Your task to perform on an android device: install app "Google Calendar" Image 0: 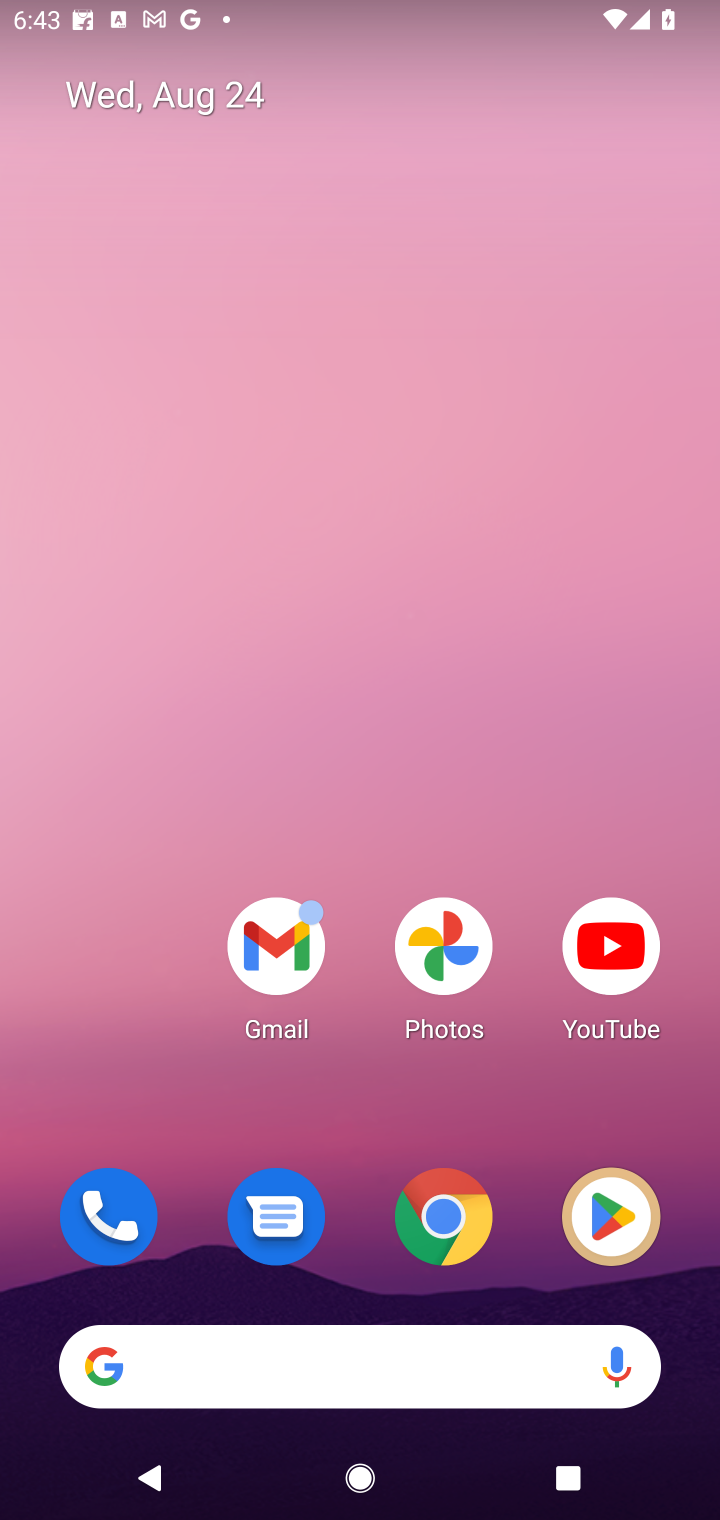
Step 0: click (594, 1259)
Your task to perform on an android device: install app "Google Calendar" Image 1: 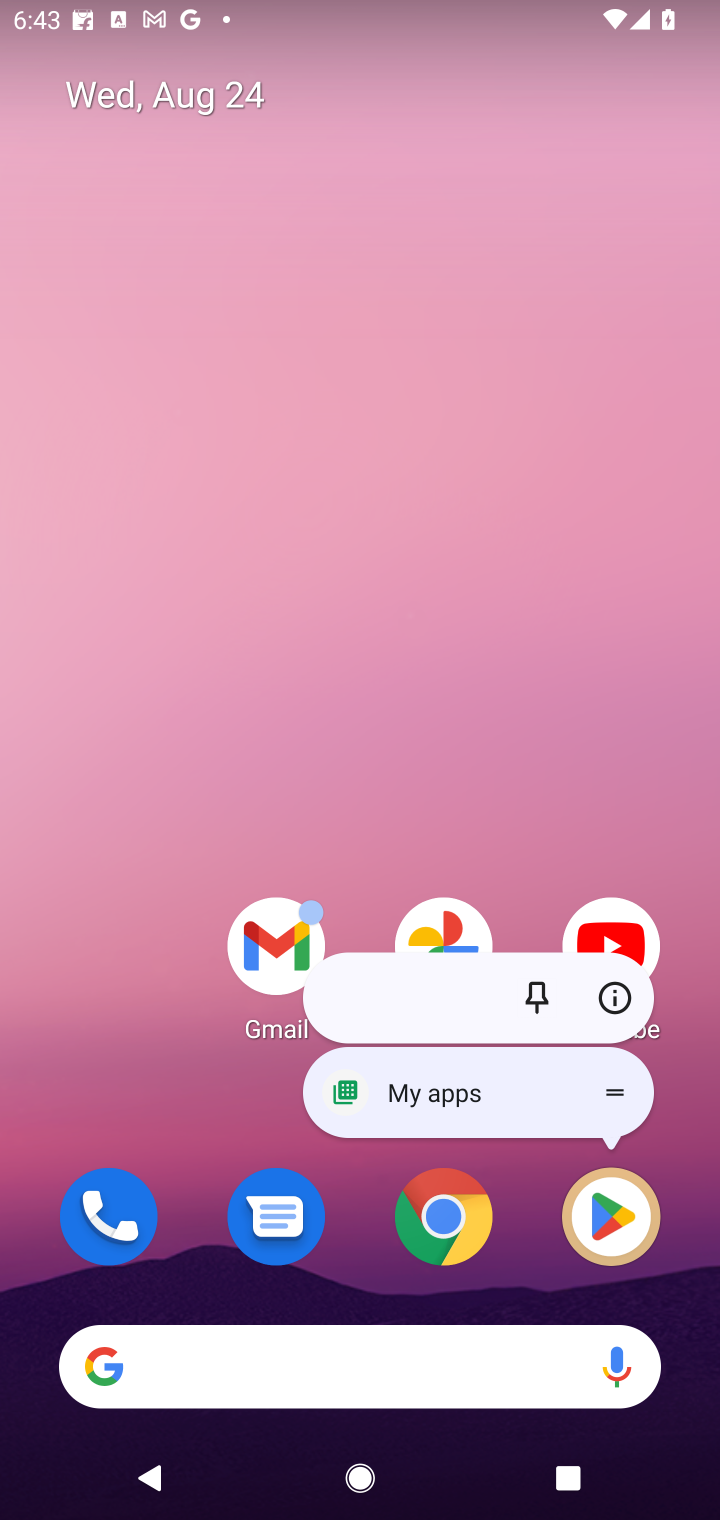
Step 1: click (592, 1231)
Your task to perform on an android device: install app "Google Calendar" Image 2: 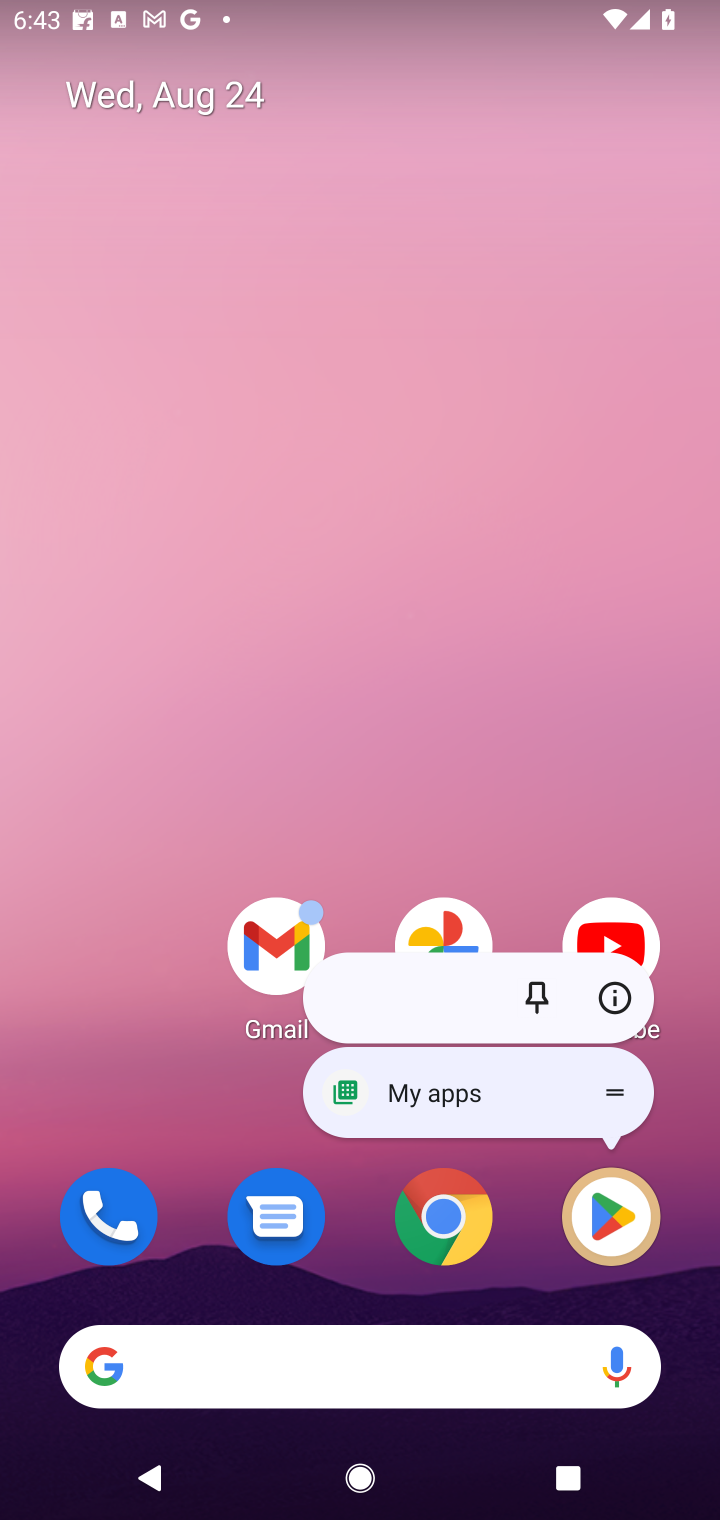
Step 2: click (592, 1231)
Your task to perform on an android device: install app "Google Calendar" Image 3: 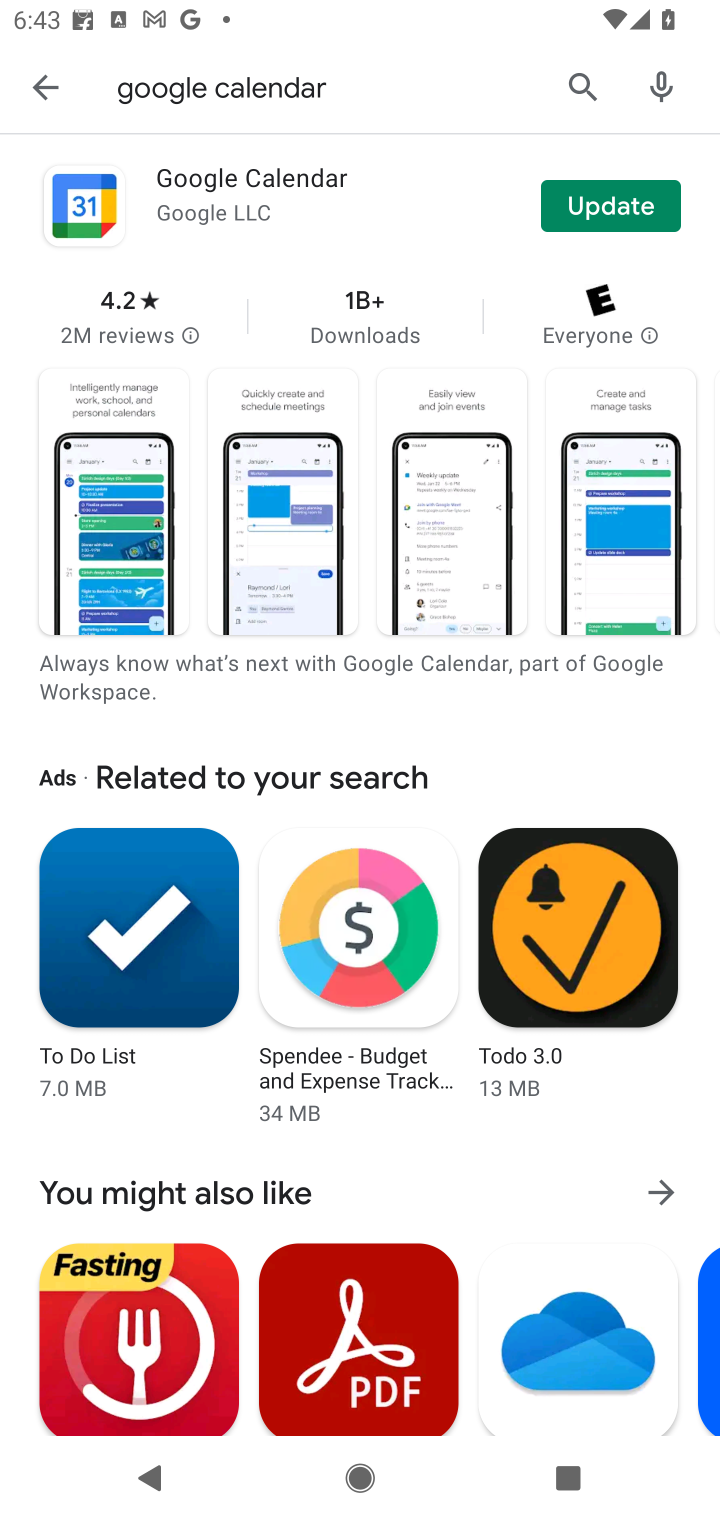
Step 3: task complete